Your task to perform on an android device: check android version Image 0: 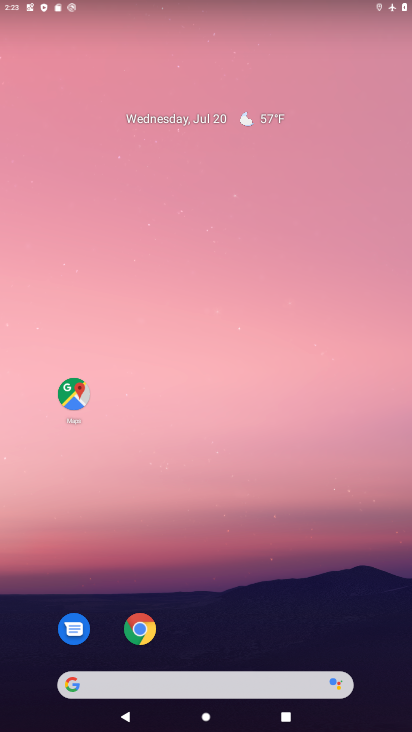
Step 0: drag from (216, 633) to (190, 158)
Your task to perform on an android device: check android version Image 1: 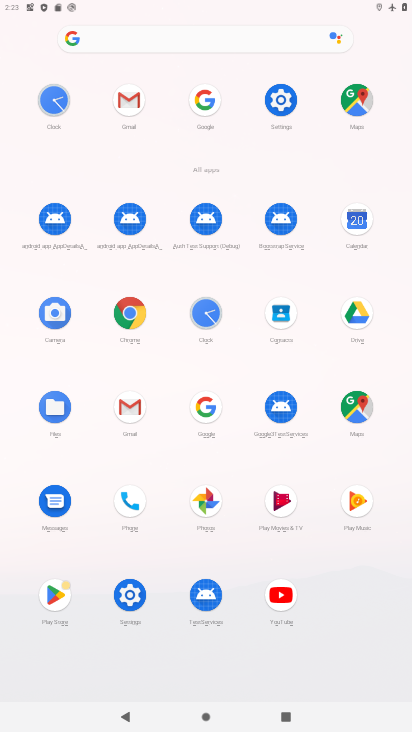
Step 1: click (272, 92)
Your task to perform on an android device: check android version Image 2: 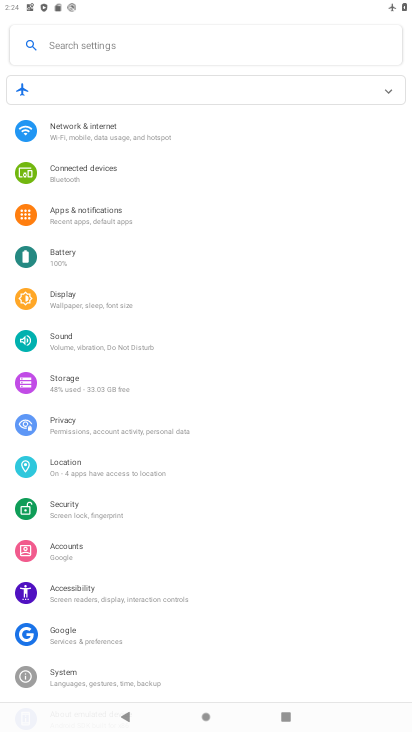
Step 2: drag from (183, 657) to (189, 226)
Your task to perform on an android device: check android version Image 3: 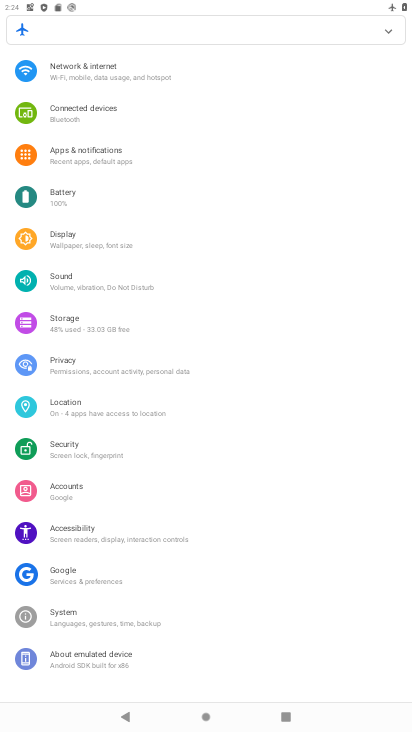
Step 3: click (131, 650)
Your task to perform on an android device: check android version Image 4: 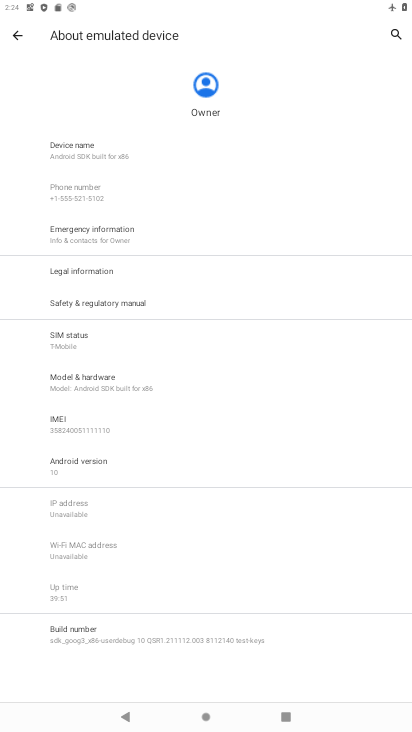
Step 4: drag from (195, 574) to (202, 195)
Your task to perform on an android device: check android version Image 5: 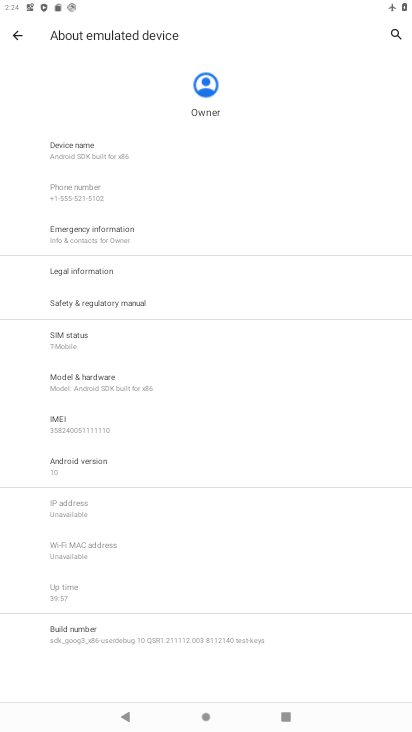
Step 5: click (84, 452)
Your task to perform on an android device: check android version Image 6: 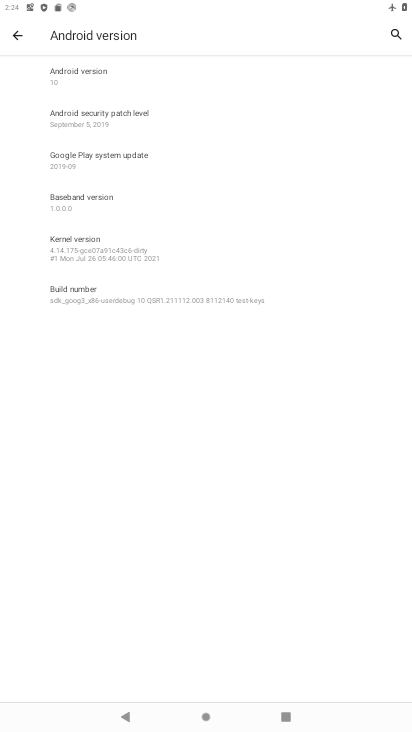
Step 6: click (94, 70)
Your task to perform on an android device: check android version Image 7: 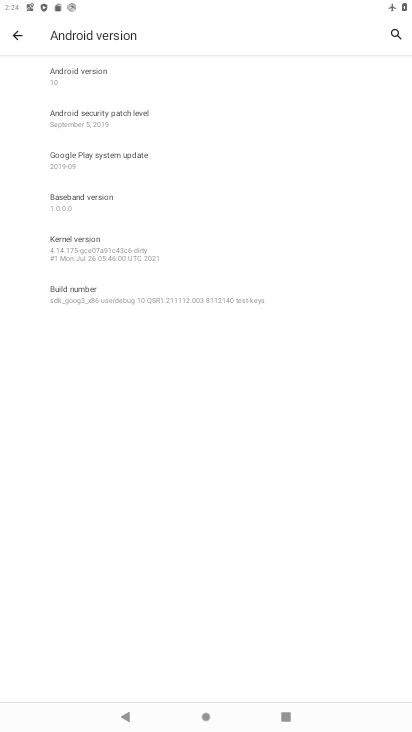
Step 7: click (111, 75)
Your task to perform on an android device: check android version Image 8: 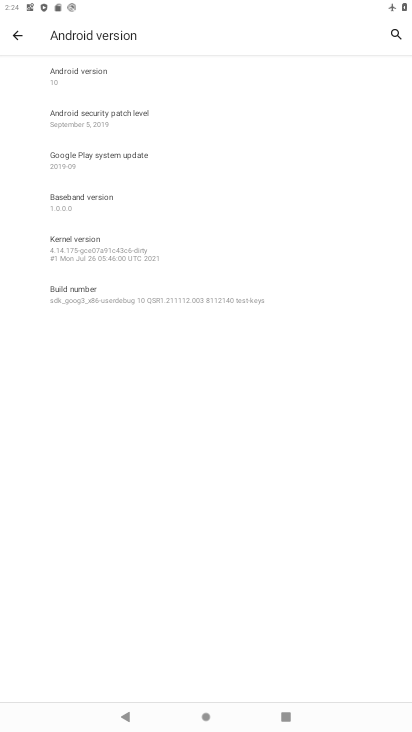
Step 8: click (250, 75)
Your task to perform on an android device: check android version Image 9: 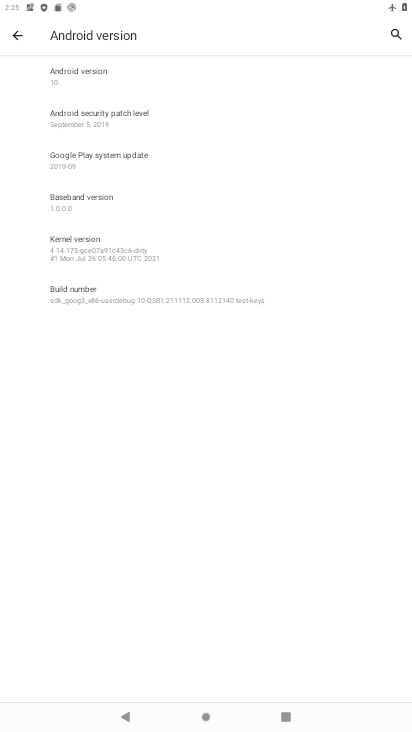
Step 9: task complete